Your task to perform on an android device: Show me popular games on the Play Store Image 0: 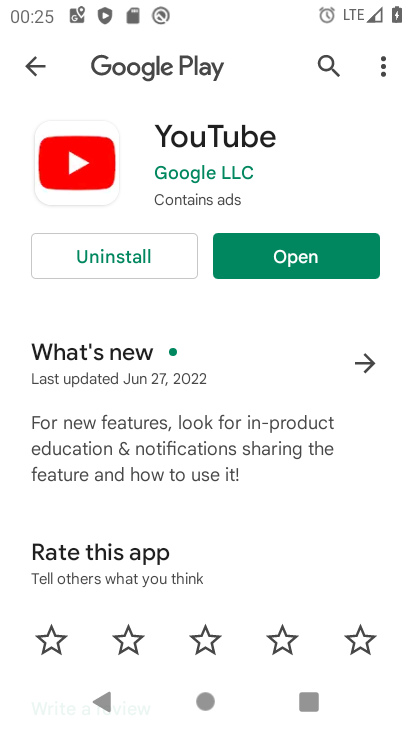
Step 0: press home button
Your task to perform on an android device: Show me popular games on the Play Store Image 1: 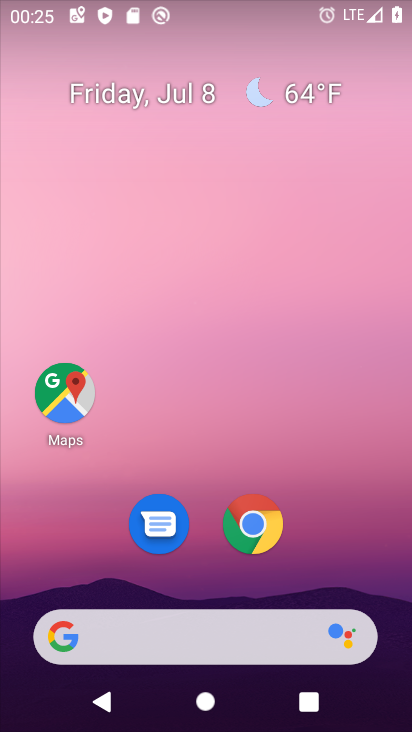
Step 1: drag from (306, 531) to (373, 58)
Your task to perform on an android device: Show me popular games on the Play Store Image 2: 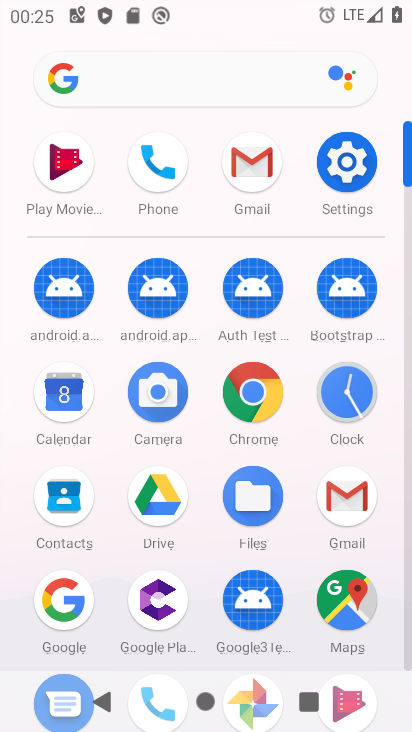
Step 2: drag from (213, 502) to (241, 210)
Your task to perform on an android device: Show me popular games on the Play Store Image 3: 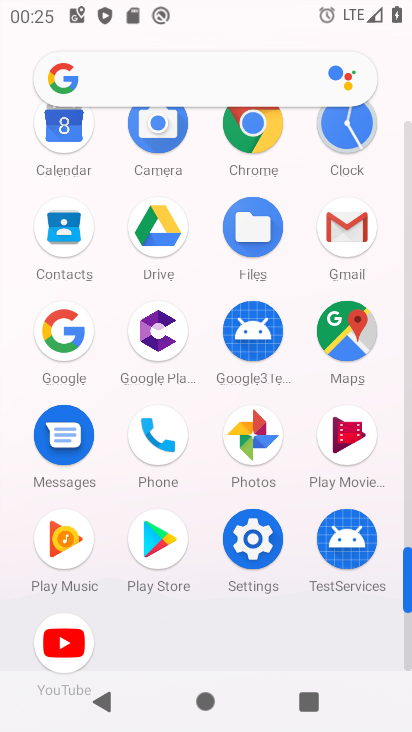
Step 3: click (176, 536)
Your task to perform on an android device: Show me popular games on the Play Store Image 4: 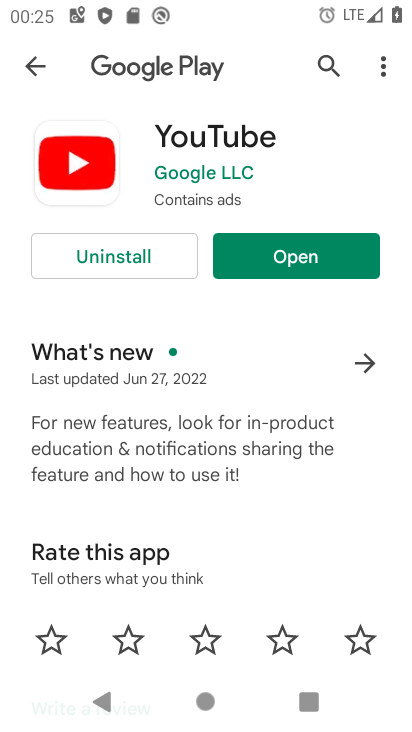
Step 4: click (38, 56)
Your task to perform on an android device: Show me popular games on the Play Store Image 5: 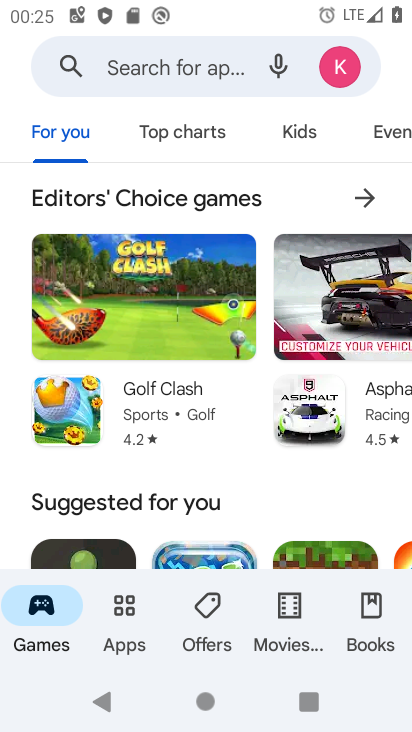
Step 5: drag from (268, 276) to (244, 505)
Your task to perform on an android device: Show me popular games on the Play Store Image 6: 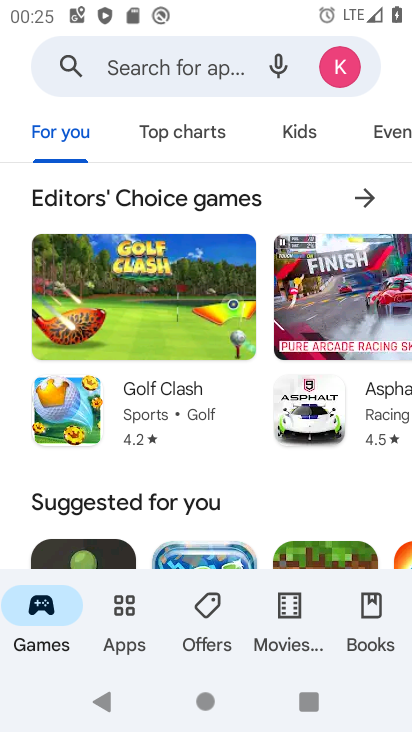
Step 6: drag from (249, 446) to (288, 120)
Your task to perform on an android device: Show me popular games on the Play Store Image 7: 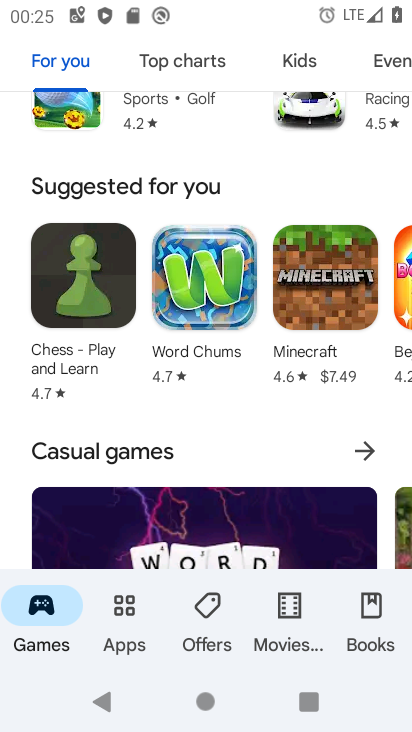
Step 7: drag from (204, 401) to (260, 110)
Your task to perform on an android device: Show me popular games on the Play Store Image 8: 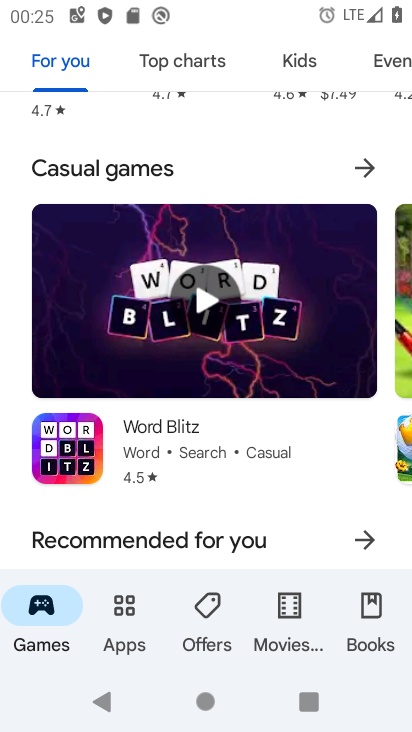
Step 8: drag from (281, 445) to (314, 103)
Your task to perform on an android device: Show me popular games on the Play Store Image 9: 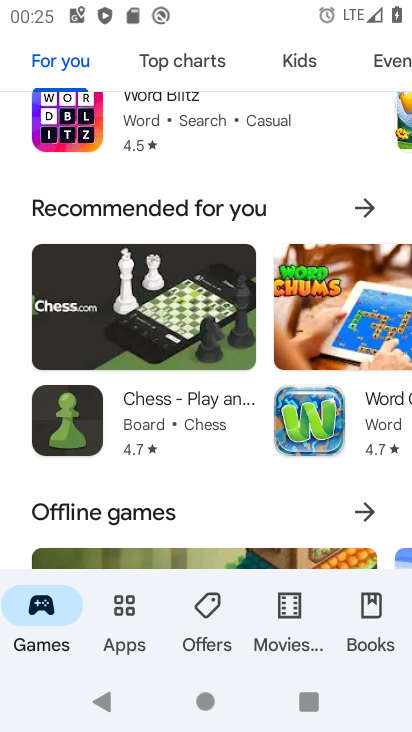
Step 9: drag from (225, 415) to (244, 112)
Your task to perform on an android device: Show me popular games on the Play Store Image 10: 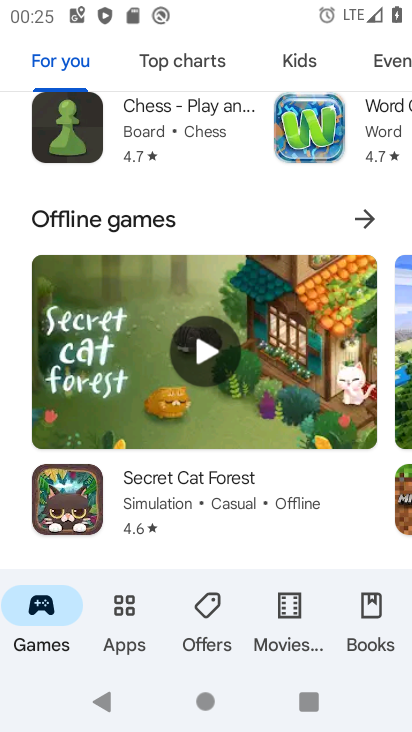
Step 10: drag from (299, 436) to (336, 158)
Your task to perform on an android device: Show me popular games on the Play Store Image 11: 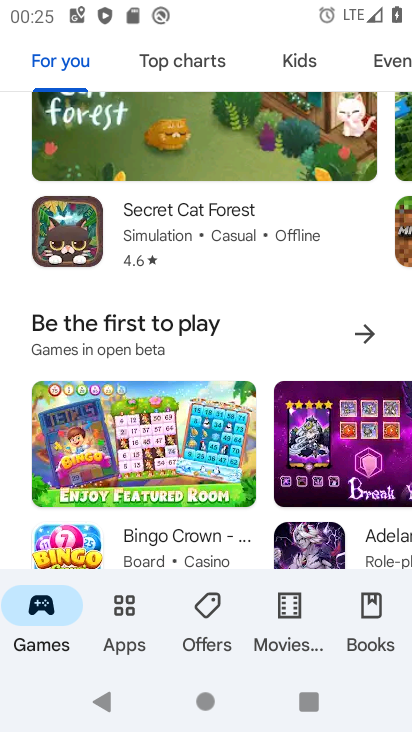
Step 11: drag from (323, 228) to (357, 487)
Your task to perform on an android device: Show me popular games on the Play Store Image 12: 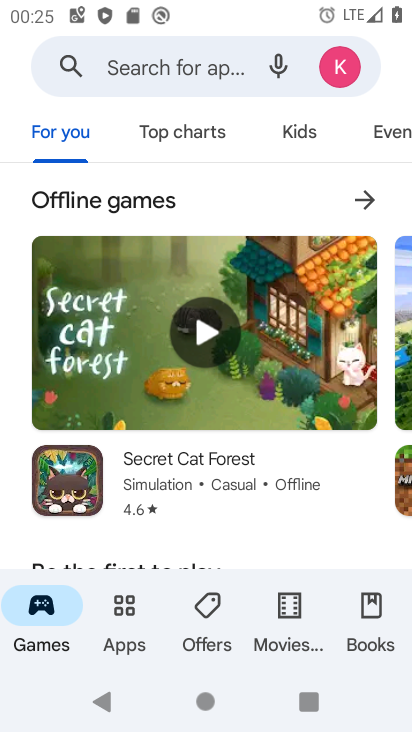
Step 12: click (228, 65)
Your task to perform on an android device: Show me popular games on the Play Store Image 13: 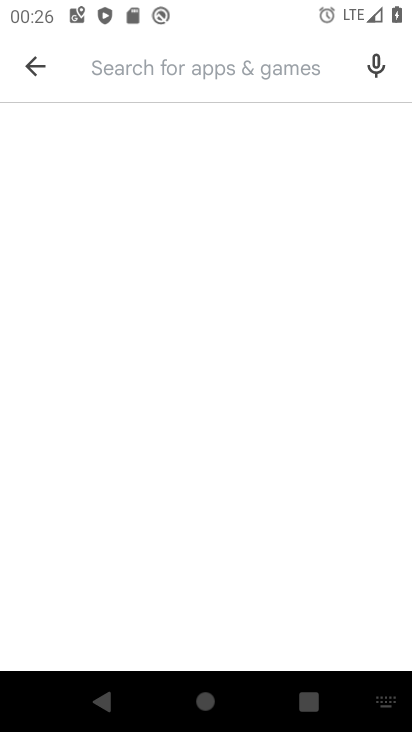
Step 13: type "popular games"
Your task to perform on an android device: Show me popular games on the Play Store Image 14: 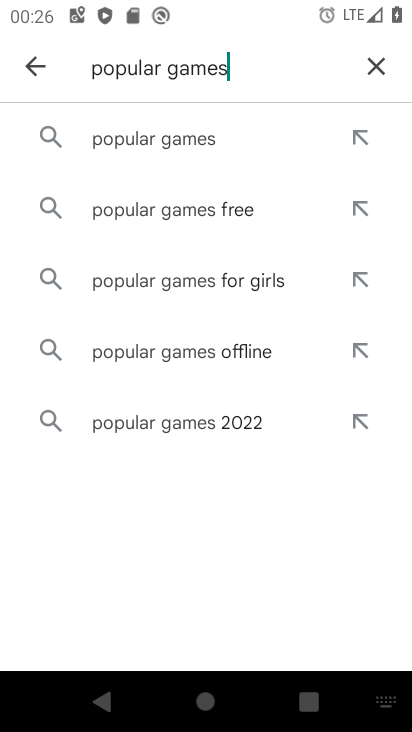
Step 14: click (200, 135)
Your task to perform on an android device: Show me popular games on the Play Store Image 15: 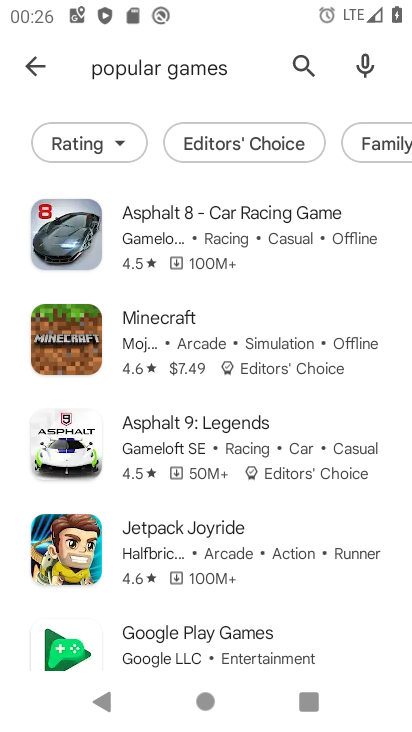
Step 15: task complete